Your task to perform on an android device: turn off location history Image 0: 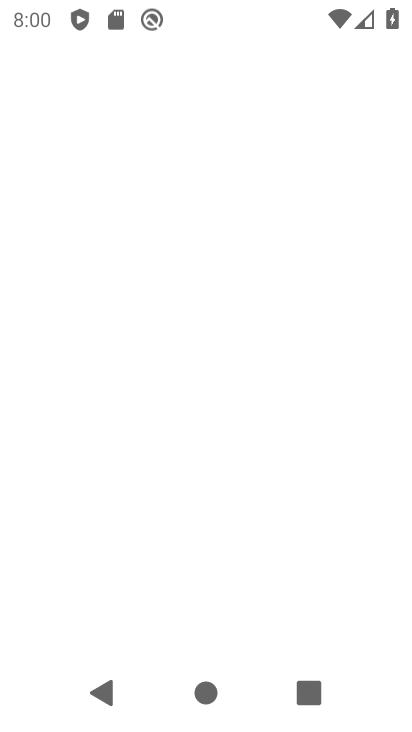
Step 0: press home button
Your task to perform on an android device: turn off location history Image 1: 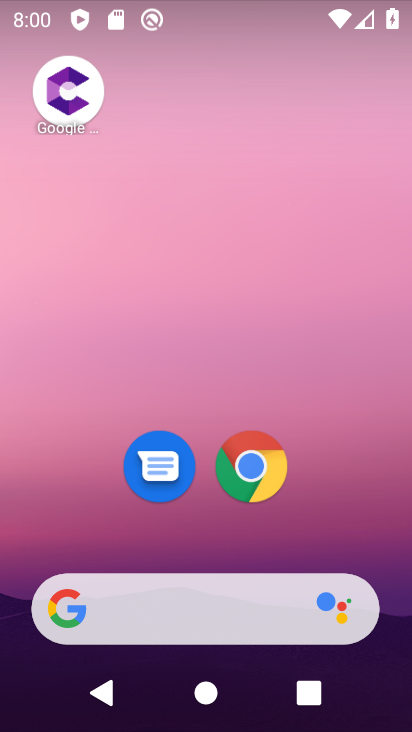
Step 1: drag from (386, 552) to (302, 171)
Your task to perform on an android device: turn off location history Image 2: 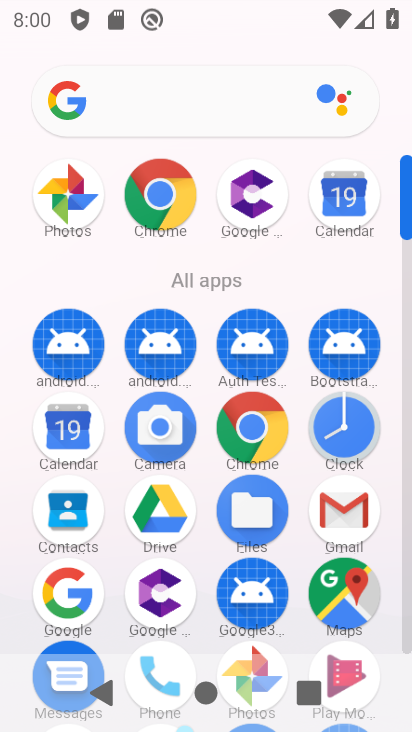
Step 2: click (352, 587)
Your task to perform on an android device: turn off location history Image 3: 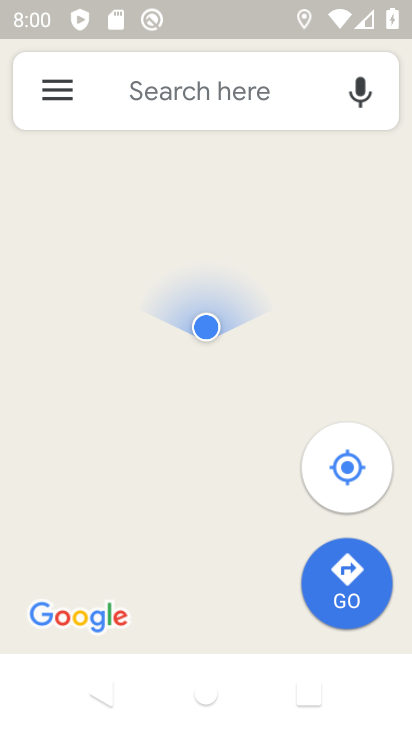
Step 3: click (66, 95)
Your task to perform on an android device: turn off location history Image 4: 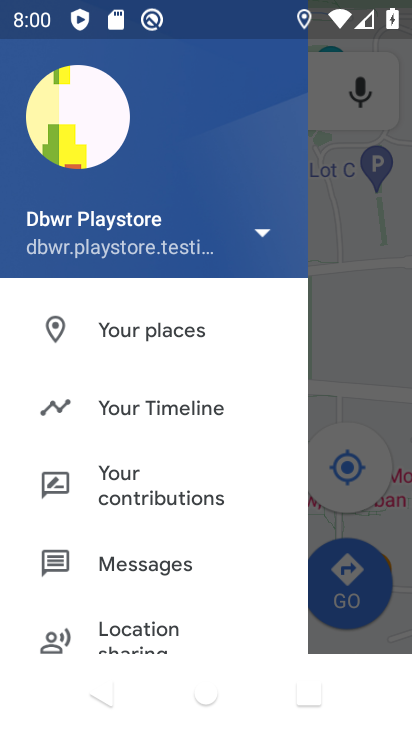
Step 4: click (120, 401)
Your task to perform on an android device: turn off location history Image 5: 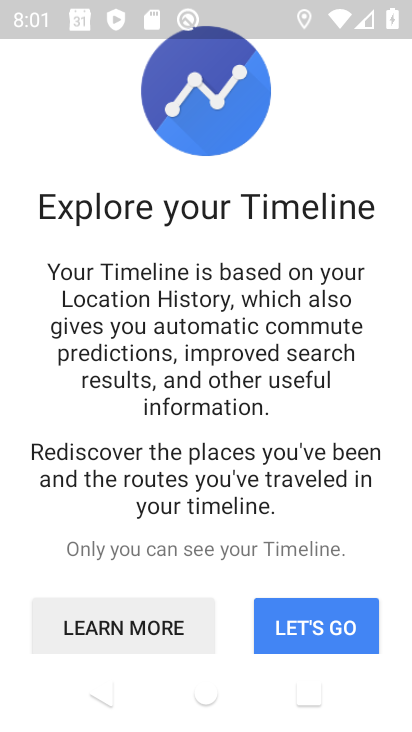
Step 5: click (327, 633)
Your task to perform on an android device: turn off location history Image 6: 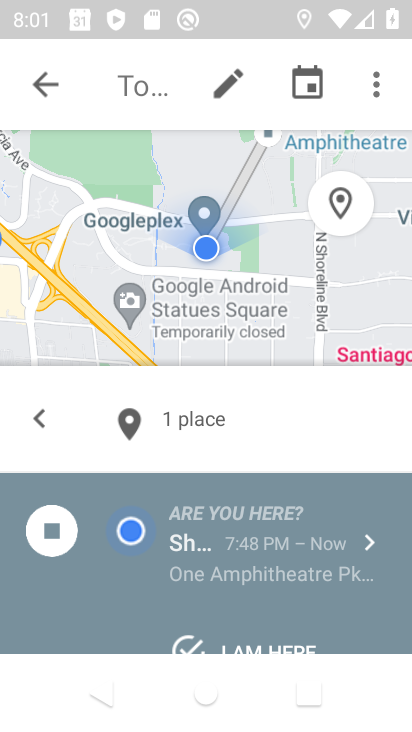
Step 6: click (390, 85)
Your task to perform on an android device: turn off location history Image 7: 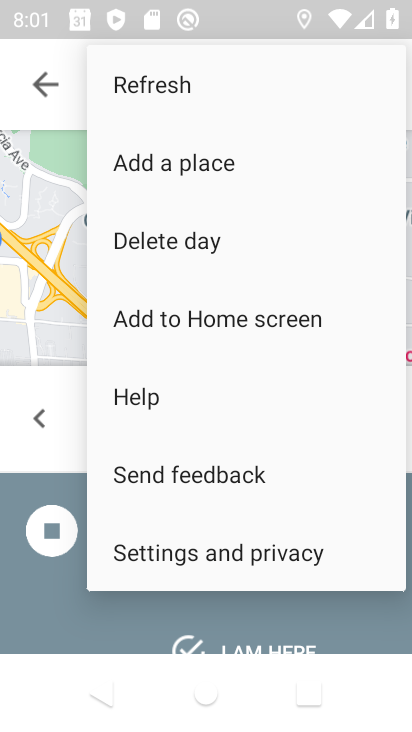
Step 7: click (266, 557)
Your task to perform on an android device: turn off location history Image 8: 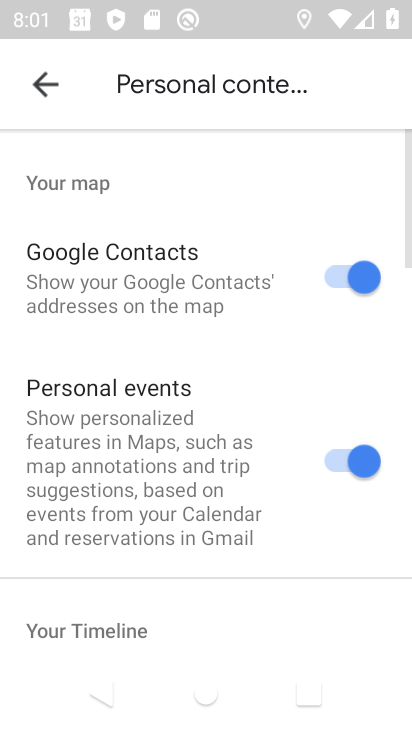
Step 8: drag from (266, 626) to (140, 53)
Your task to perform on an android device: turn off location history Image 9: 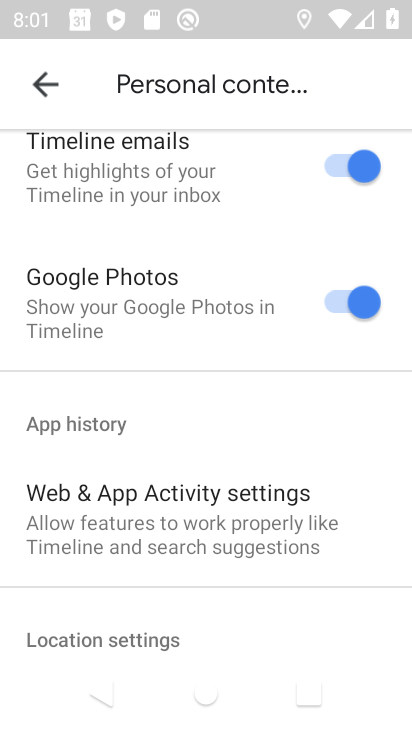
Step 9: drag from (261, 608) to (185, 90)
Your task to perform on an android device: turn off location history Image 10: 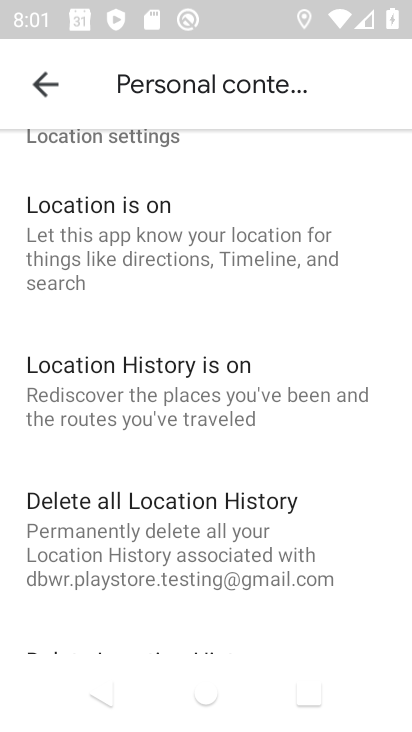
Step 10: click (300, 404)
Your task to perform on an android device: turn off location history Image 11: 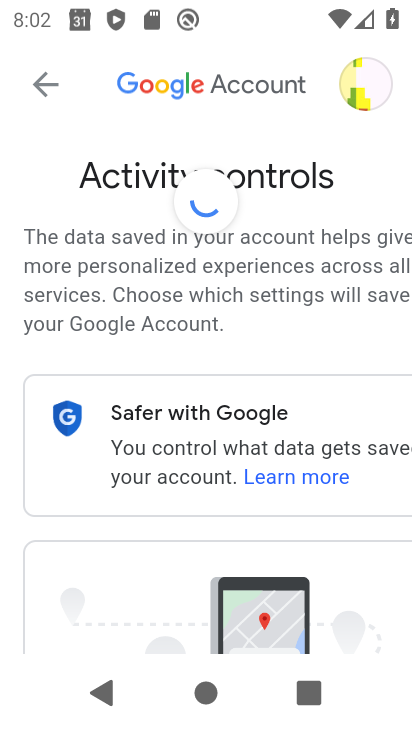
Step 11: drag from (335, 546) to (322, 216)
Your task to perform on an android device: turn off location history Image 12: 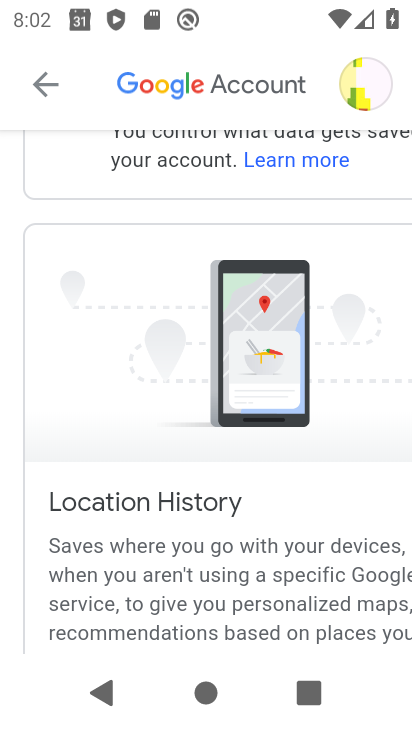
Step 12: drag from (306, 516) to (239, 141)
Your task to perform on an android device: turn off location history Image 13: 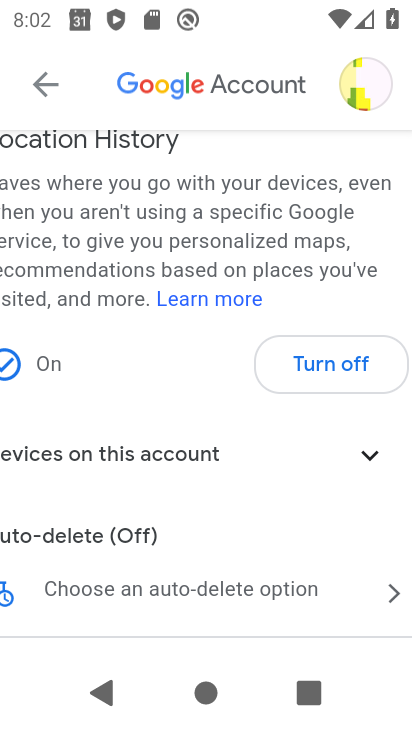
Step 13: click (332, 356)
Your task to perform on an android device: turn off location history Image 14: 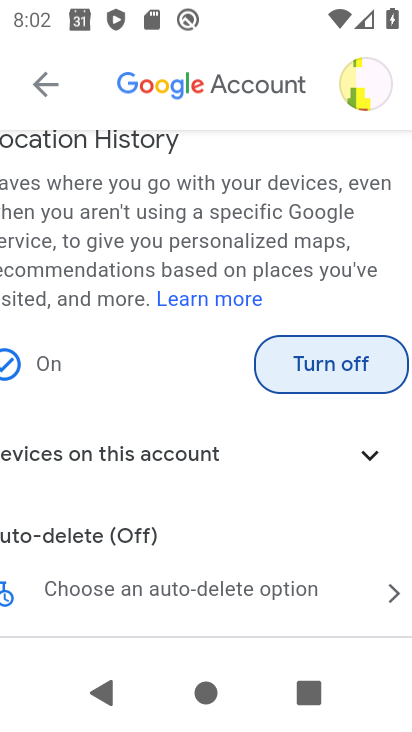
Step 14: click (363, 357)
Your task to perform on an android device: turn off location history Image 15: 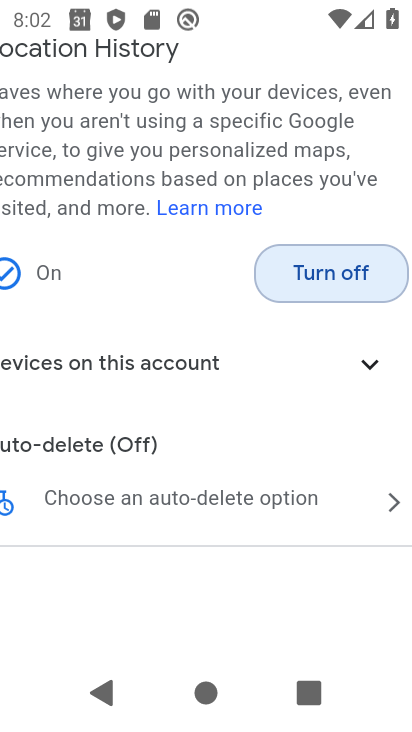
Step 15: click (363, 357)
Your task to perform on an android device: turn off location history Image 16: 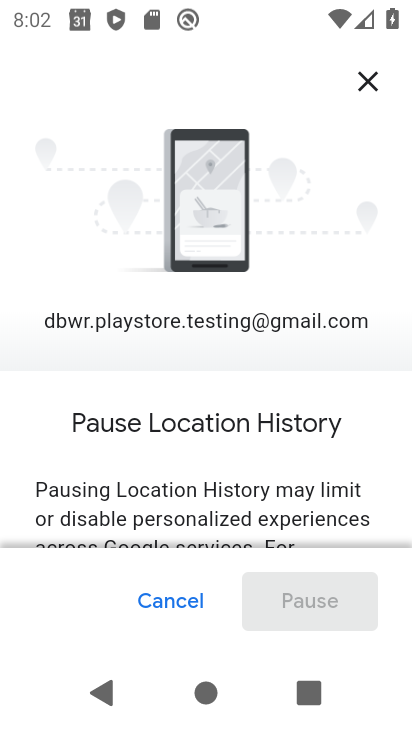
Step 16: drag from (350, 501) to (276, 1)
Your task to perform on an android device: turn off location history Image 17: 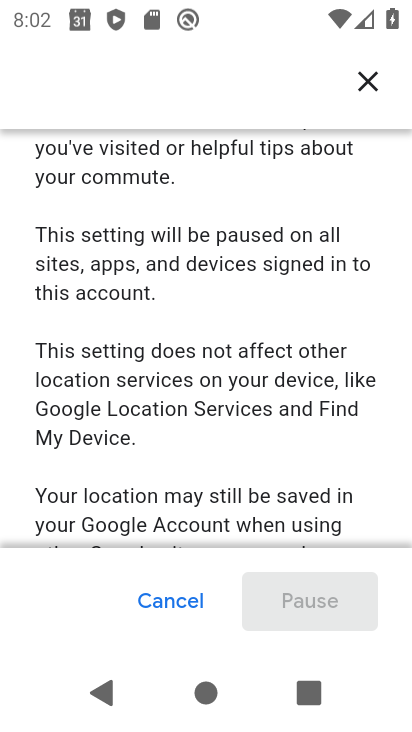
Step 17: drag from (283, 486) to (227, 66)
Your task to perform on an android device: turn off location history Image 18: 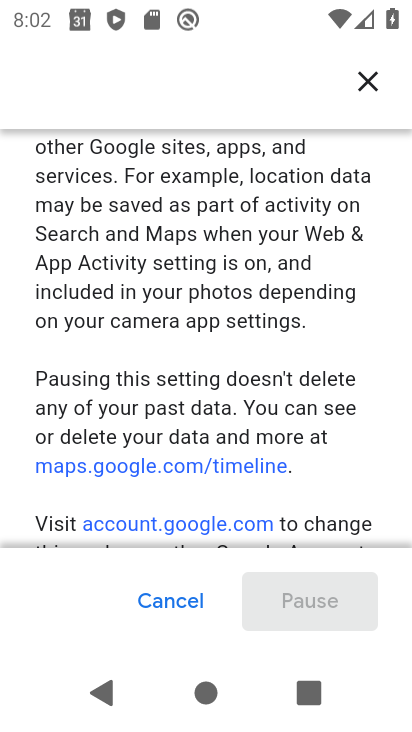
Step 18: drag from (278, 491) to (236, 42)
Your task to perform on an android device: turn off location history Image 19: 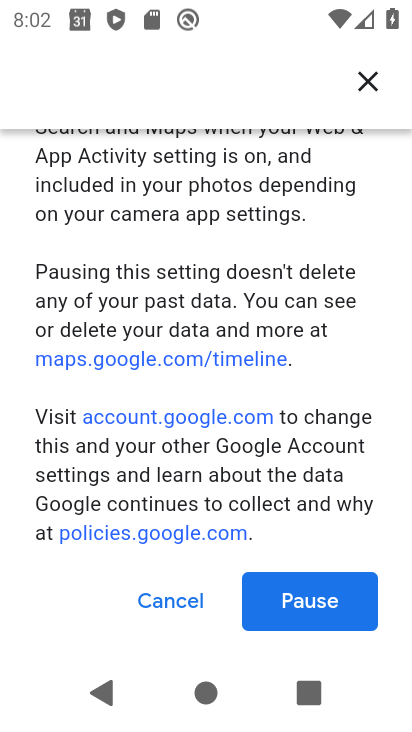
Step 19: click (324, 617)
Your task to perform on an android device: turn off location history Image 20: 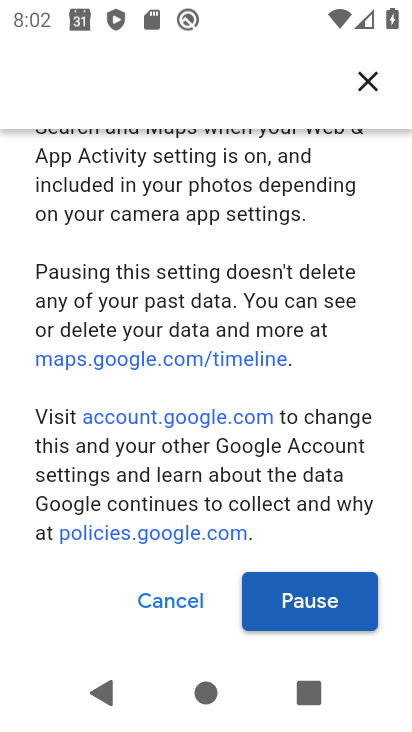
Step 20: click (324, 617)
Your task to perform on an android device: turn off location history Image 21: 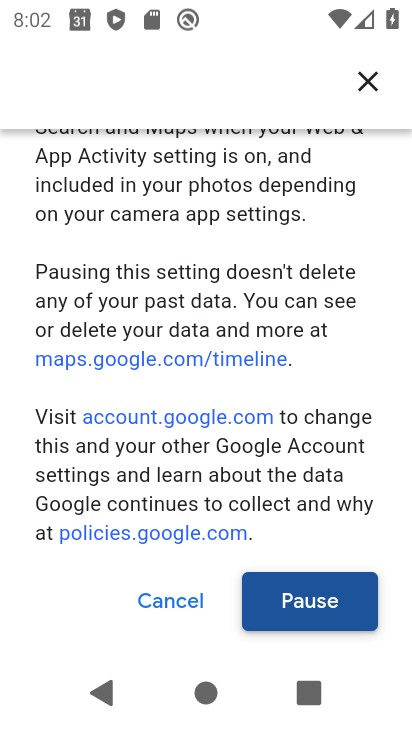
Step 21: click (325, 591)
Your task to perform on an android device: turn off location history Image 22: 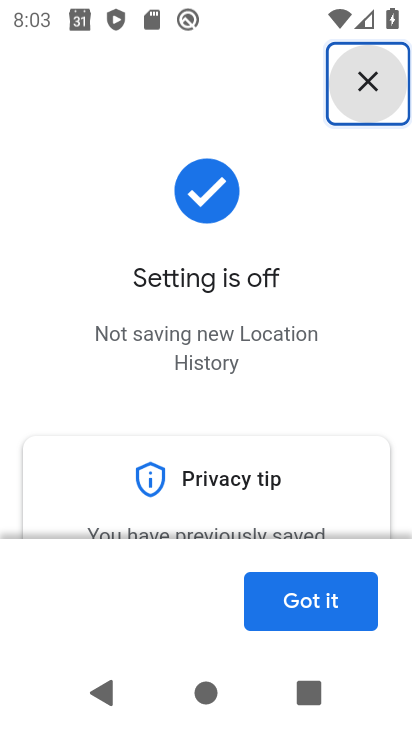
Step 22: click (289, 598)
Your task to perform on an android device: turn off location history Image 23: 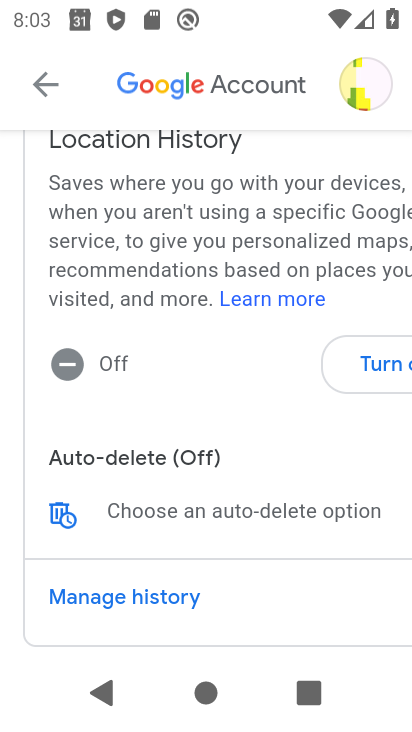
Step 23: task complete